Your task to perform on an android device: Open wifi settings Image 0: 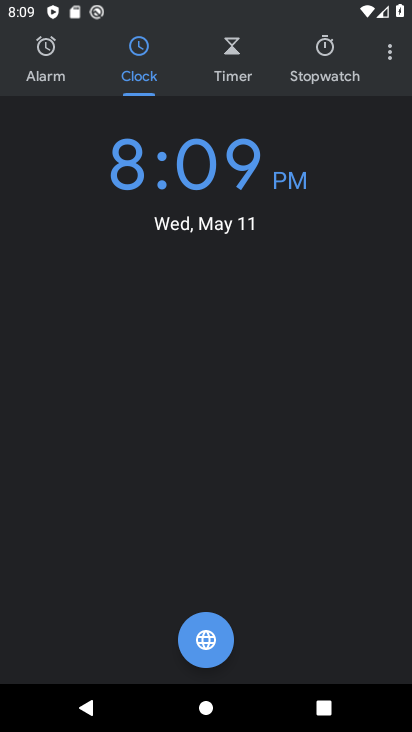
Step 0: press home button
Your task to perform on an android device: Open wifi settings Image 1: 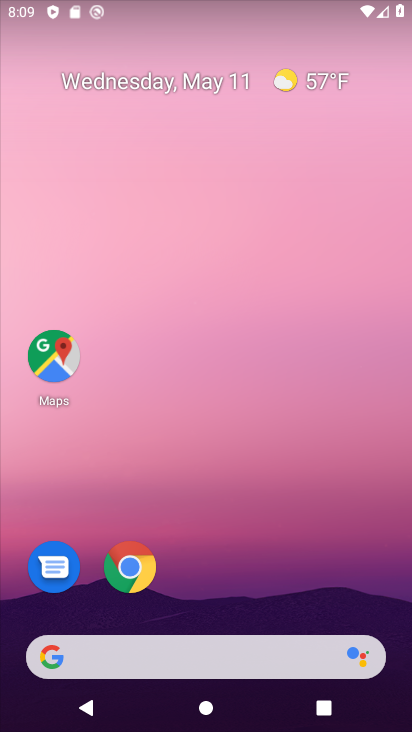
Step 1: drag from (274, 540) to (176, 36)
Your task to perform on an android device: Open wifi settings Image 2: 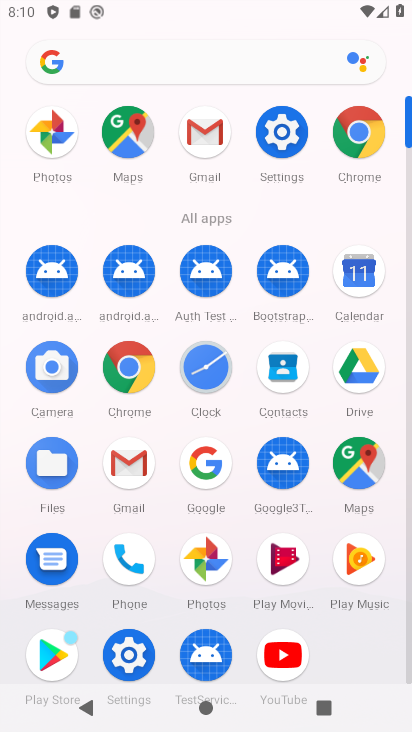
Step 2: click (289, 127)
Your task to perform on an android device: Open wifi settings Image 3: 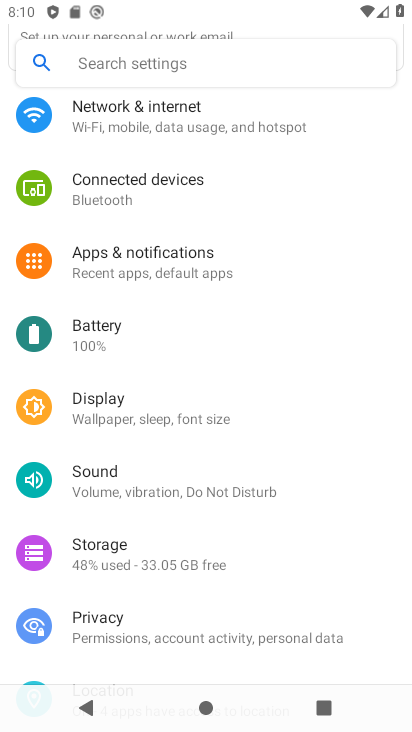
Step 3: click (168, 113)
Your task to perform on an android device: Open wifi settings Image 4: 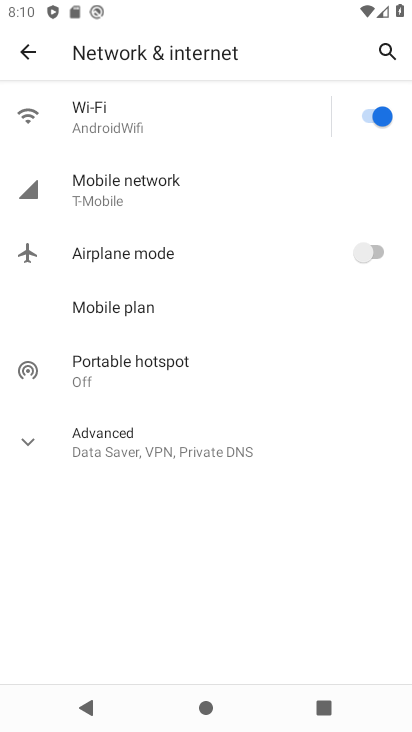
Step 4: click (168, 114)
Your task to perform on an android device: Open wifi settings Image 5: 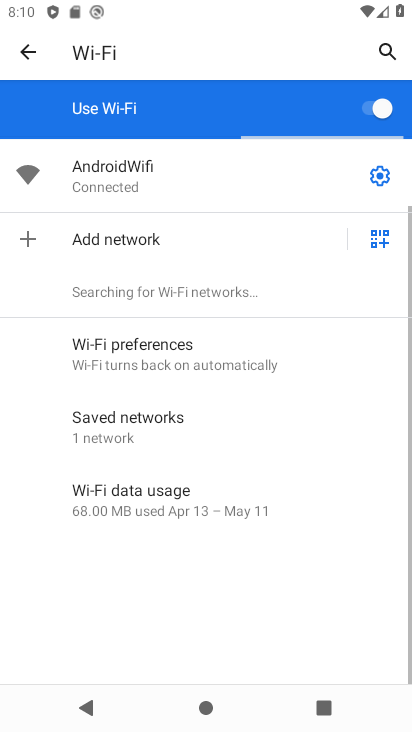
Step 5: task complete